Your task to perform on an android device: turn on priority inbox in the gmail app Image 0: 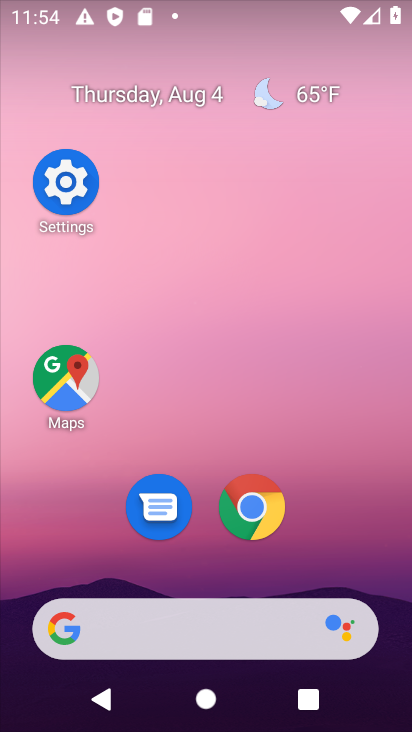
Step 0: drag from (330, 571) to (334, 148)
Your task to perform on an android device: turn on priority inbox in the gmail app Image 1: 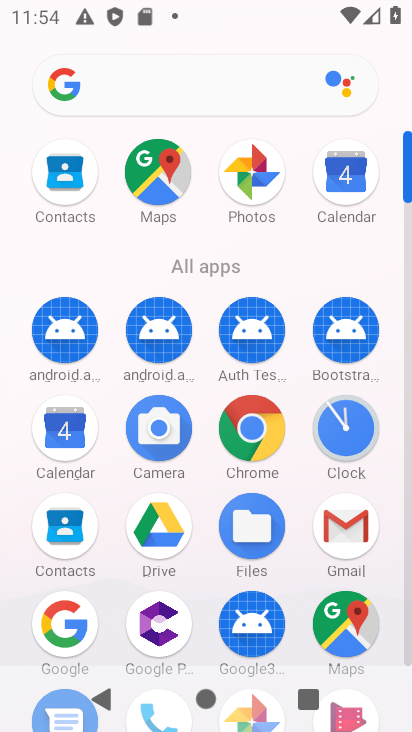
Step 1: drag from (337, 528) to (169, 213)
Your task to perform on an android device: turn on priority inbox in the gmail app Image 2: 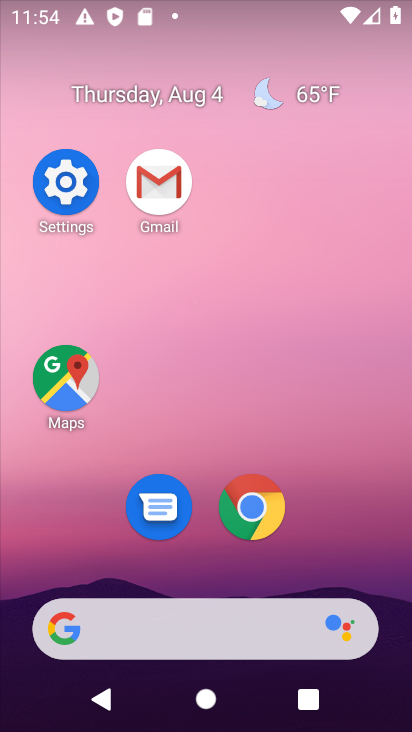
Step 2: click (152, 174)
Your task to perform on an android device: turn on priority inbox in the gmail app Image 3: 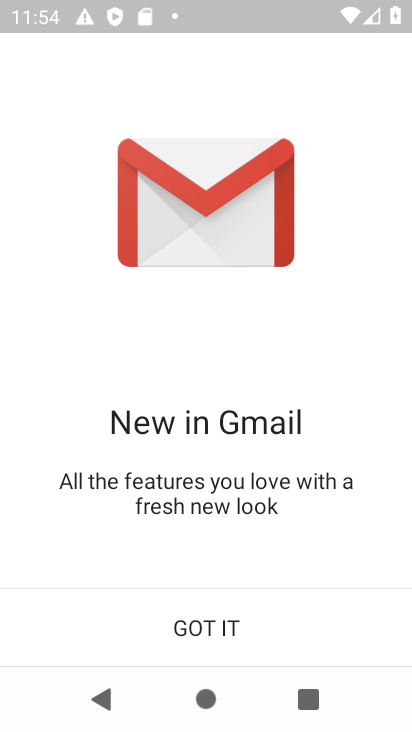
Step 3: click (319, 642)
Your task to perform on an android device: turn on priority inbox in the gmail app Image 4: 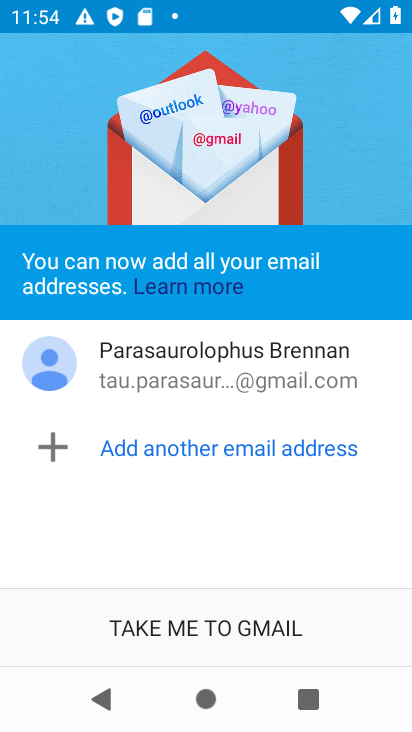
Step 4: click (320, 598)
Your task to perform on an android device: turn on priority inbox in the gmail app Image 5: 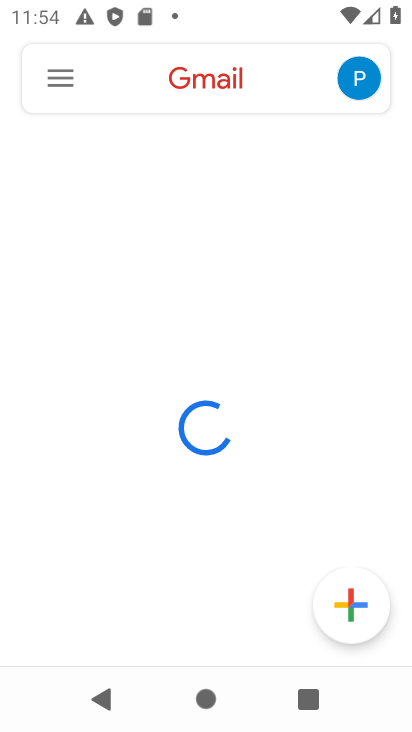
Step 5: click (57, 69)
Your task to perform on an android device: turn on priority inbox in the gmail app Image 6: 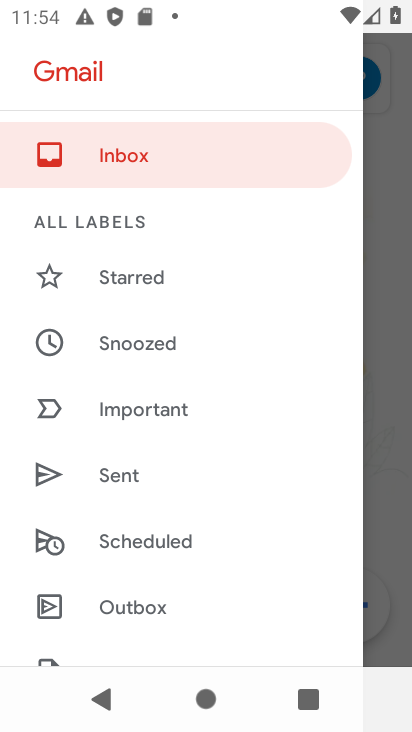
Step 6: drag from (273, 571) to (297, 218)
Your task to perform on an android device: turn on priority inbox in the gmail app Image 7: 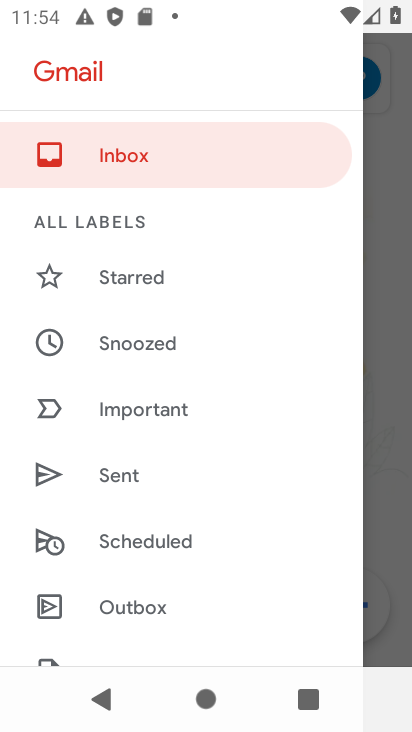
Step 7: drag from (220, 572) to (243, 195)
Your task to perform on an android device: turn on priority inbox in the gmail app Image 8: 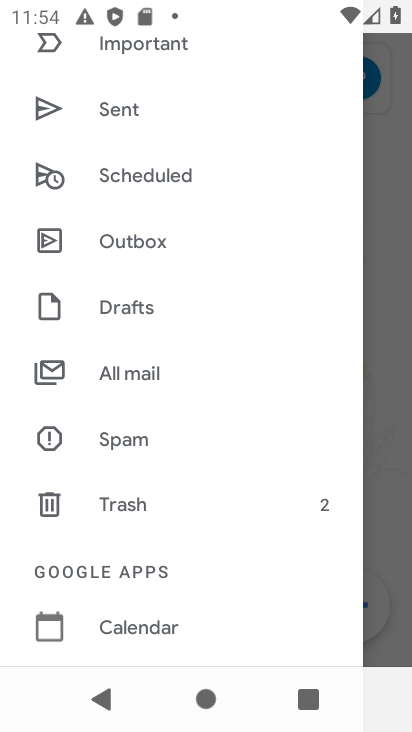
Step 8: drag from (233, 565) to (256, 189)
Your task to perform on an android device: turn on priority inbox in the gmail app Image 9: 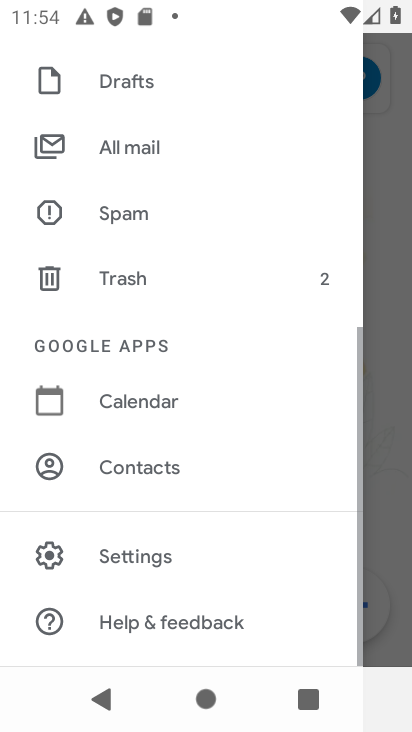
Step 9: click (190, 537)
Your task to perform on an android device: turn on priority inbox in the gmail app Image 10: 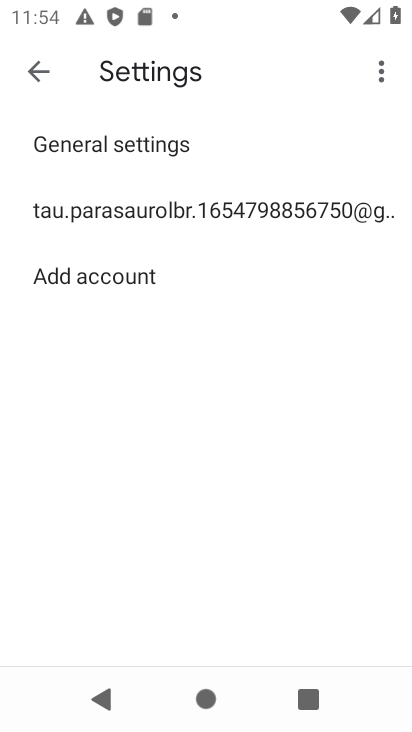
Step 10: click (188, 196)
Your task to perform on an android device: turn on priority inbox in the gmail app Image 11: 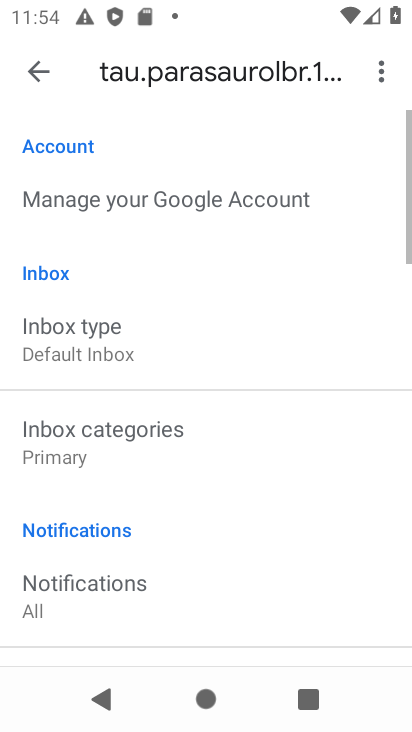
Step 11: click (198, 341)
Your task to perform on an android device: turn on priority inbox in the gmail app Image 12: 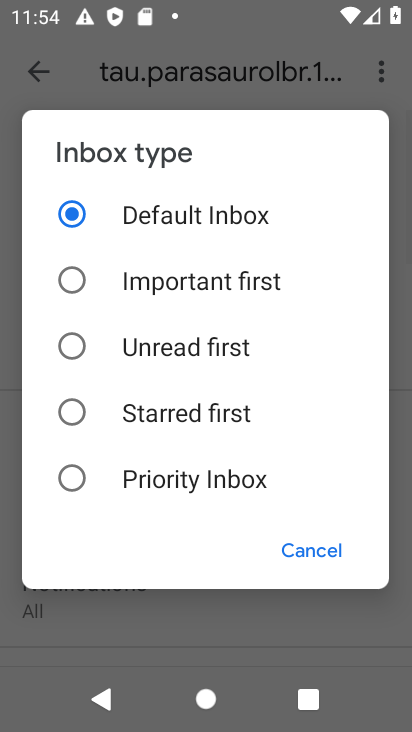
Step 12: click (175, 483)
Your task to perform on an android device: turn on priority inbox in the gmail app Image 13: 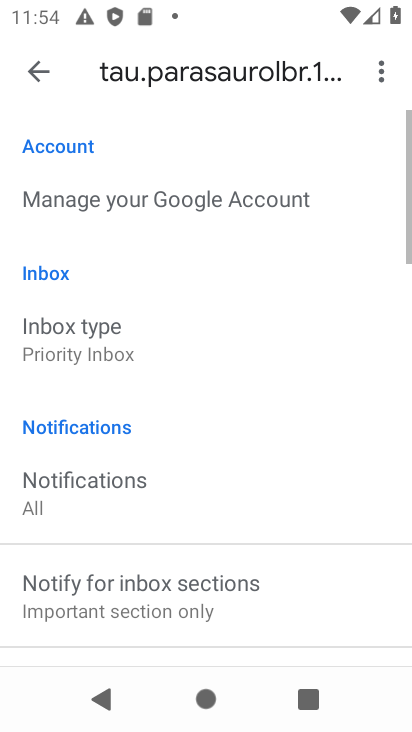
Step 13: task complete